Your task to perform on an android device: turn off data saver in the chrome app Image 0: 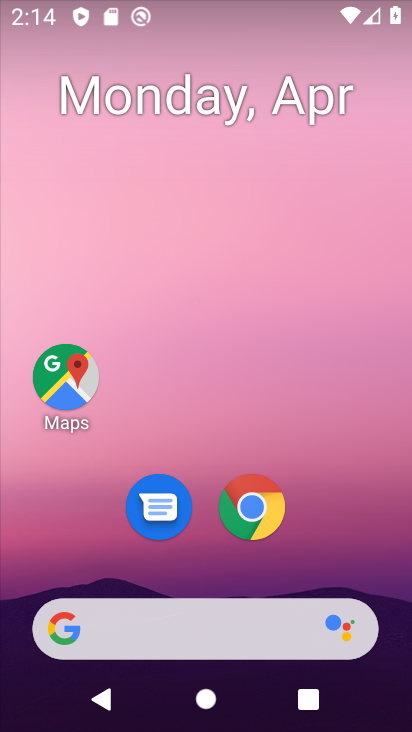
Step 0: click (252, 510)
Your task to perform on an android device: turn off data saver in the chrome app Image 1: 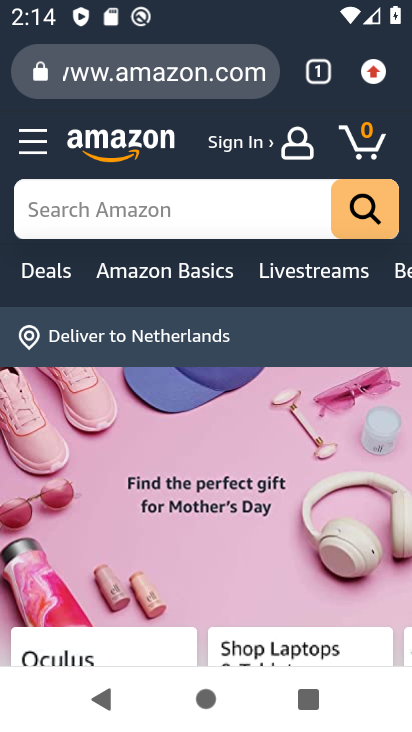
Step 1: click (371, 71)
Your task to perform on an android device: turn off data saver in the chrome app Image 2: 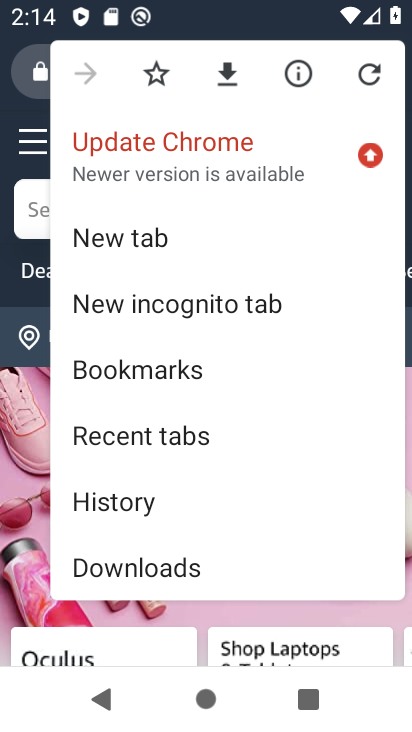
Step 2: drag from (220, 536) to (286, 206)
Your task to perform on an android device: turn off data saver in the chrome app Image 3: 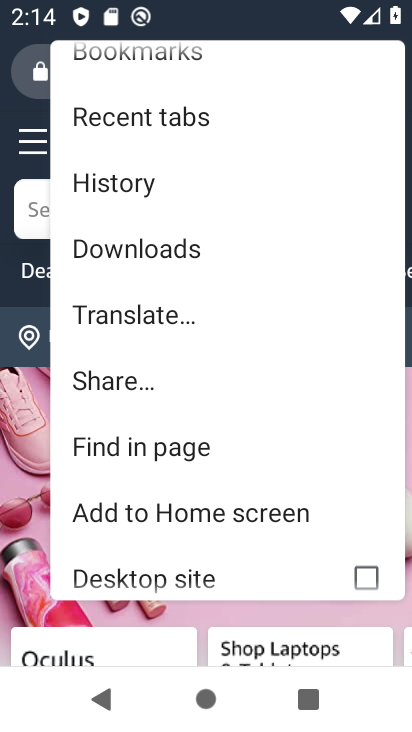
Step 3: drag from (300, 515) to (271, 153)
Your task to perform on an android device: turn off data saver in the chrome app Image 4: 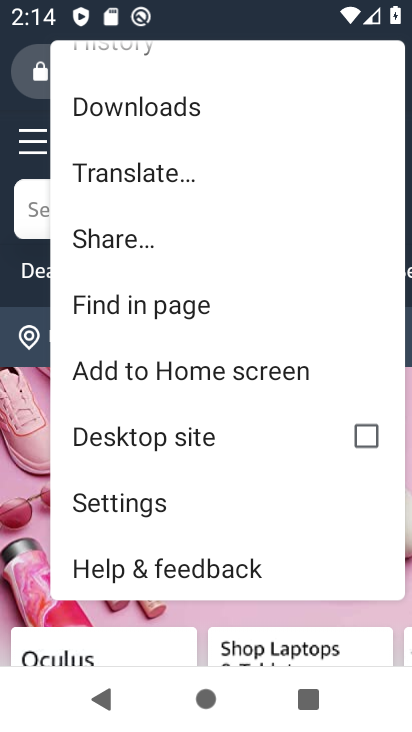
Step 4: click (114, 507)
Your task to perform on an android device: turn off data saver in the chrome app Image 5: 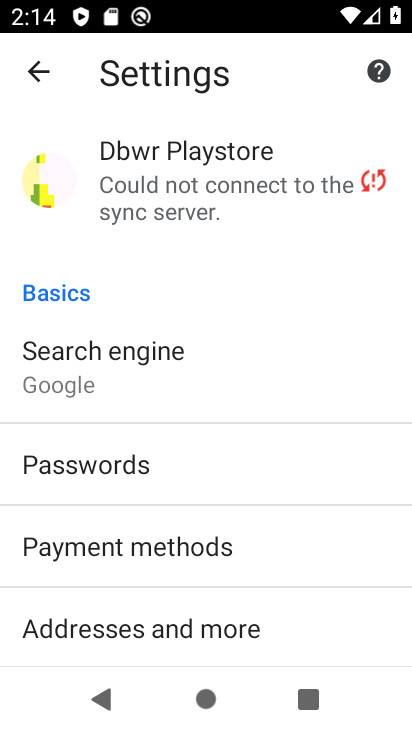
Step 5: drag from (263, 588) to (230, 204)
Your task to perform on an android device: turn off data saver in the chrome app Image 6: 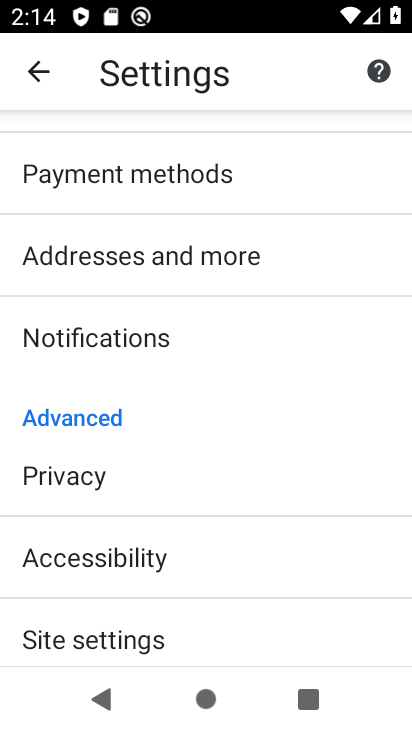
Step 6: drag from (211, 568) to (270, 207)
Your task to perform on an android device: turn off data saver in the chrome app Image 7: 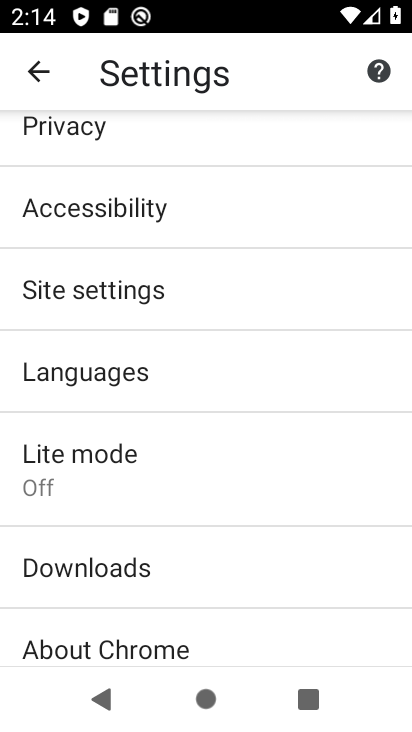
Step 7: click (46, 454)
Your task to perform on an android device: turn off data saver in the chrome app Image 8: 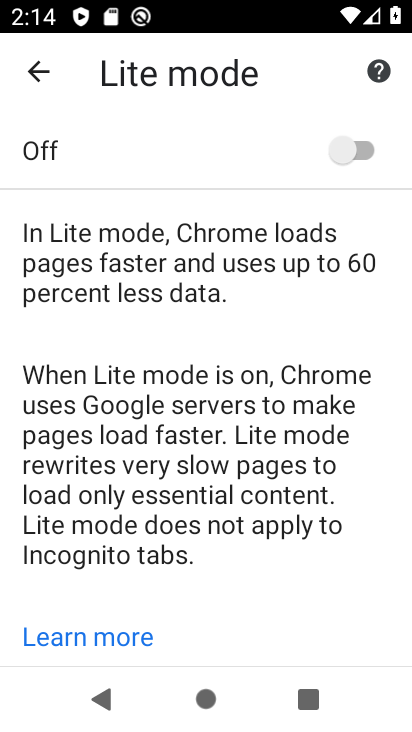
Step 8: task complete